Your task to perform on an android device: Search for Italian restaurants on Maps Image 0: 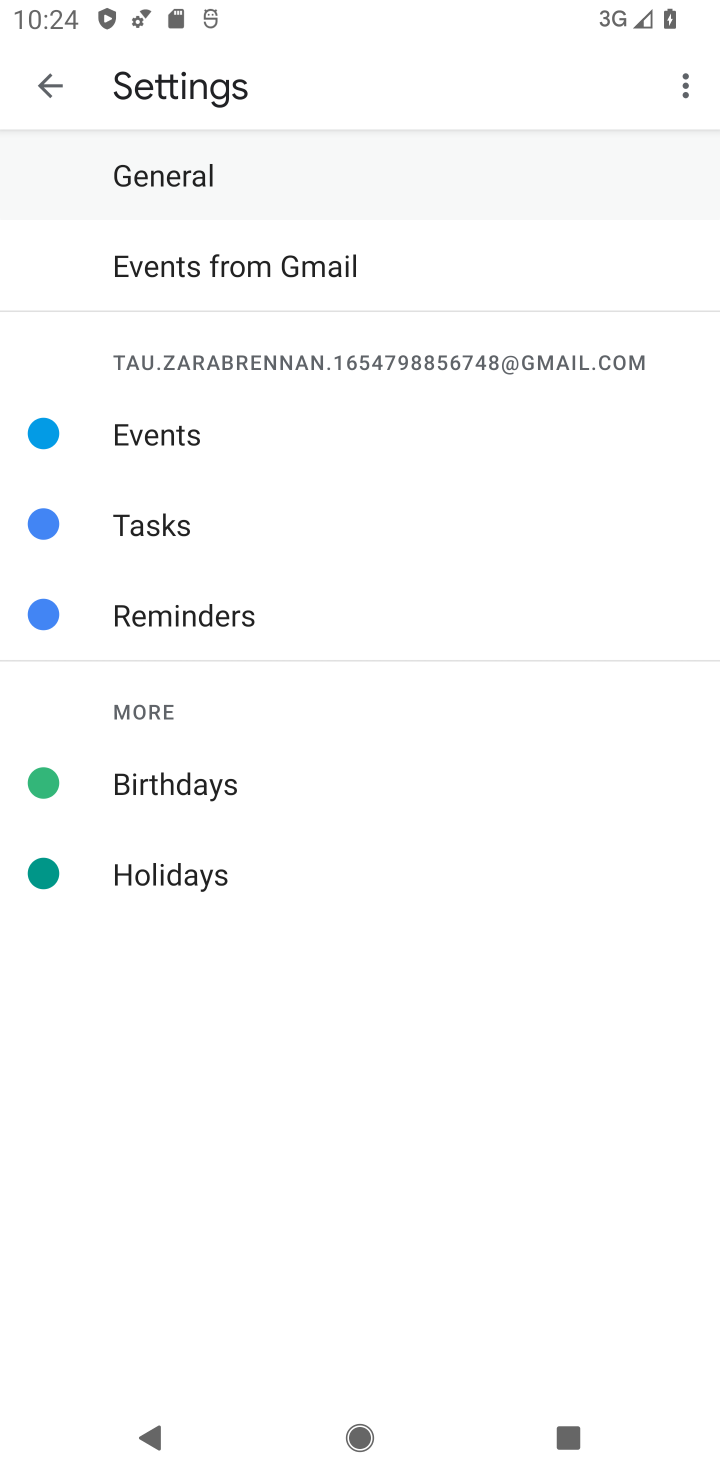
Step 0: press home button
Your task to perform on an android device: Search for Italian restaurants on Maps Image 1: 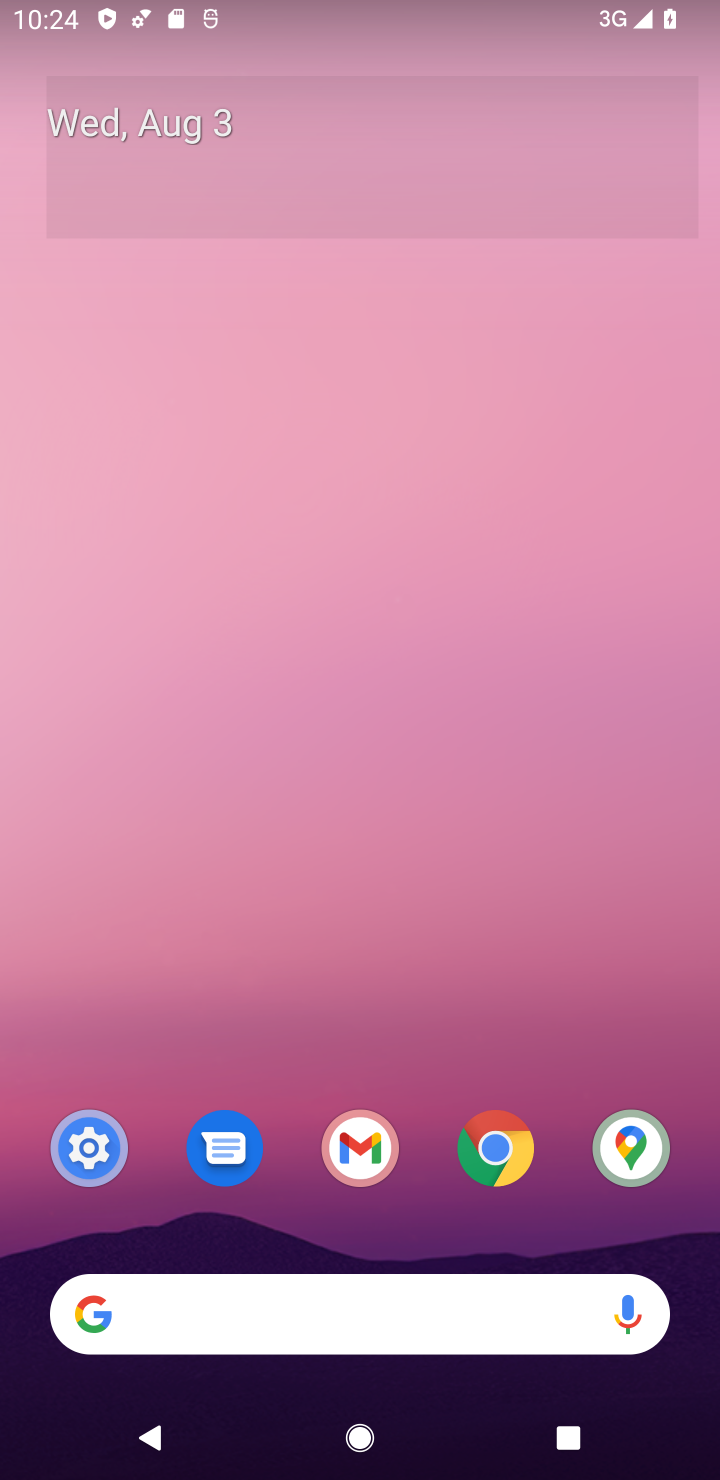
Step 1: click (455, 1302)
Your task to perform on an android device: Search for Italian restaurants on Maps Image 2: 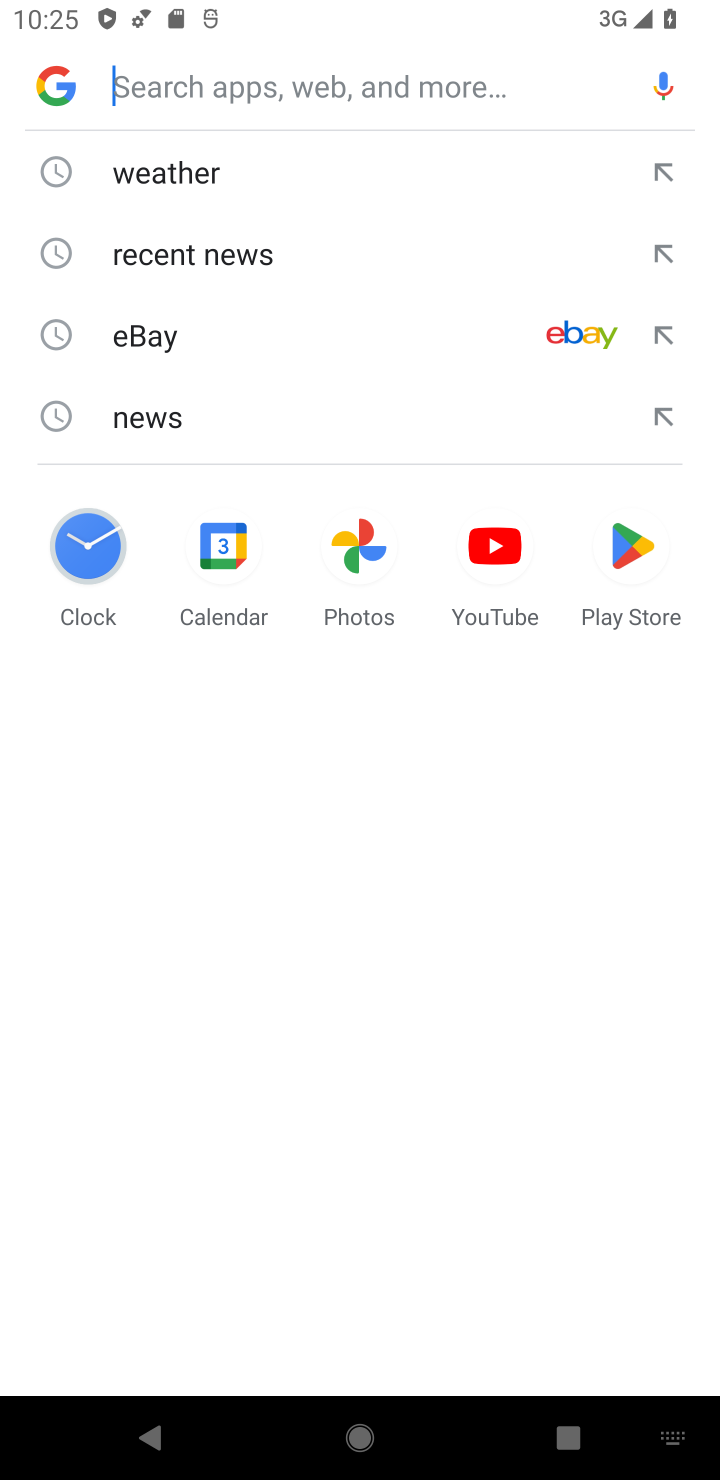
Step 2: type "Italian restaurants "
Your task to perform on an android device: Search for Italian restaurants on Maps Image 3: 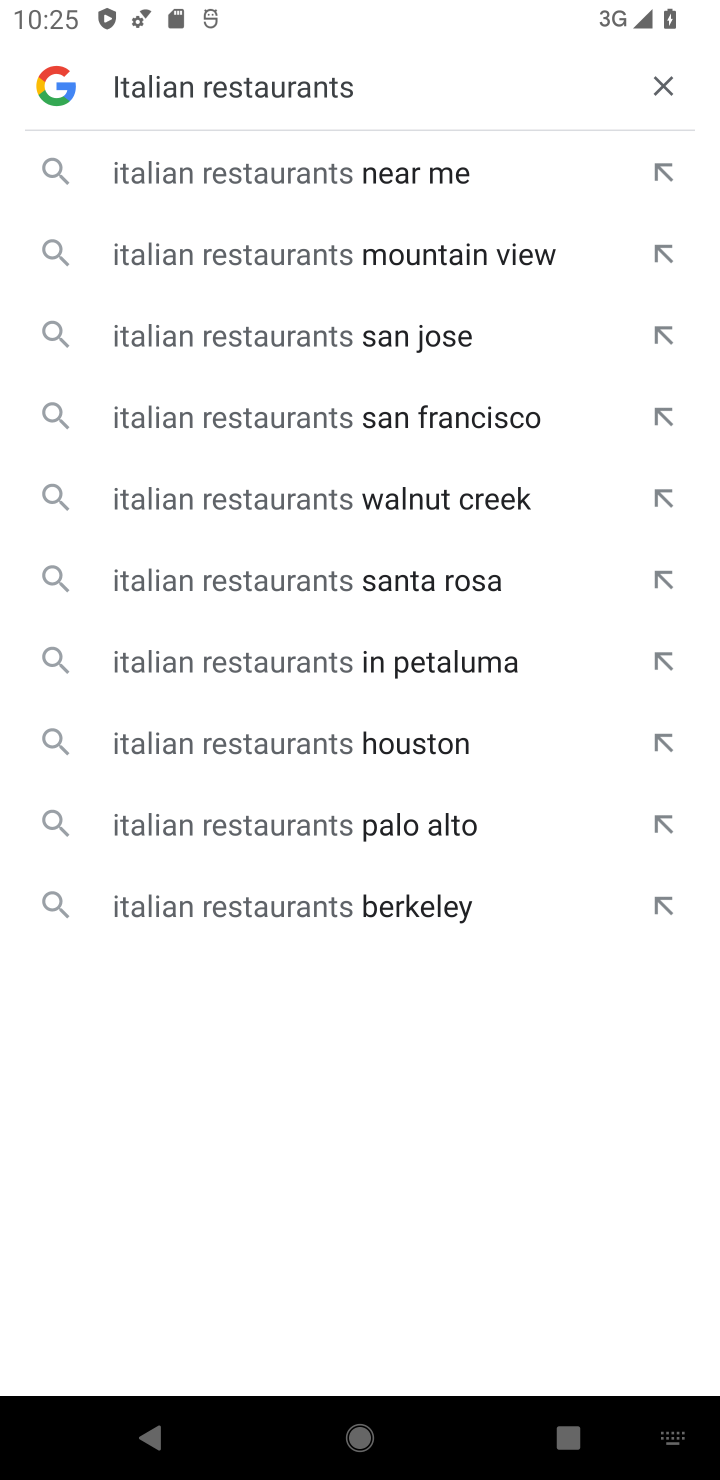
Step 3: type ""
Your task to perform on an android device: Search for Italian restaurants on Maps Image 4: 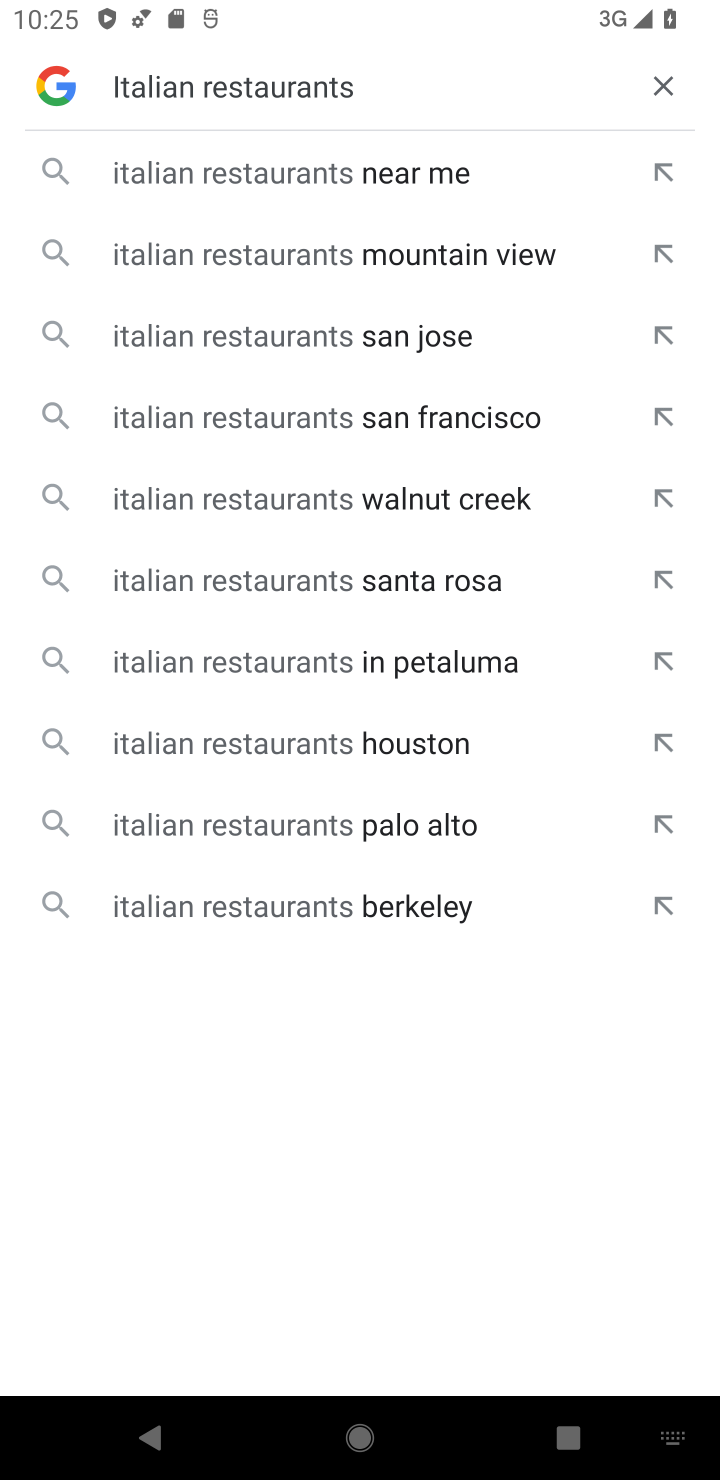
Step 4: type ""
Your task to perform on an android device: Search for Italian restaurants on Maps Image 5: 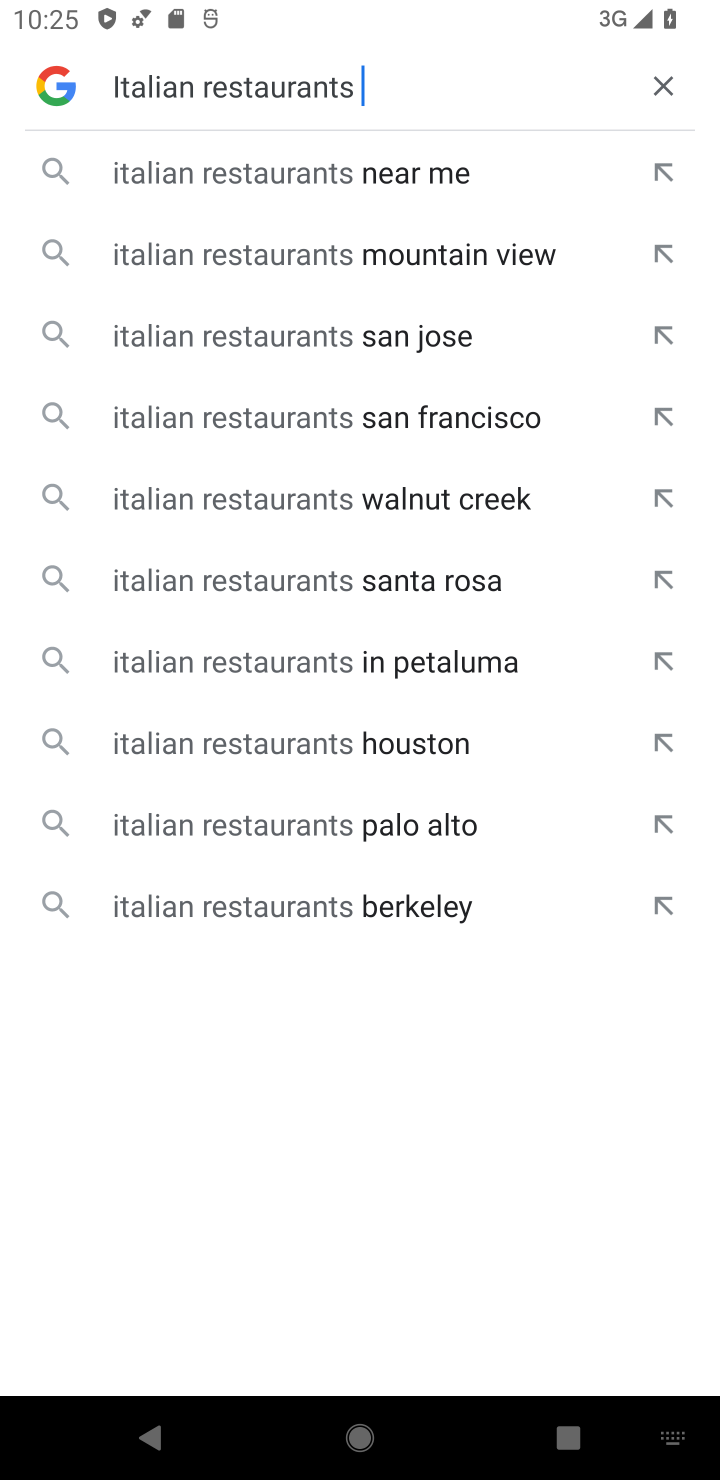
Step 5: press enter
Your task to perform on an android device: Search for Italian restaurants on Maps Image 6: 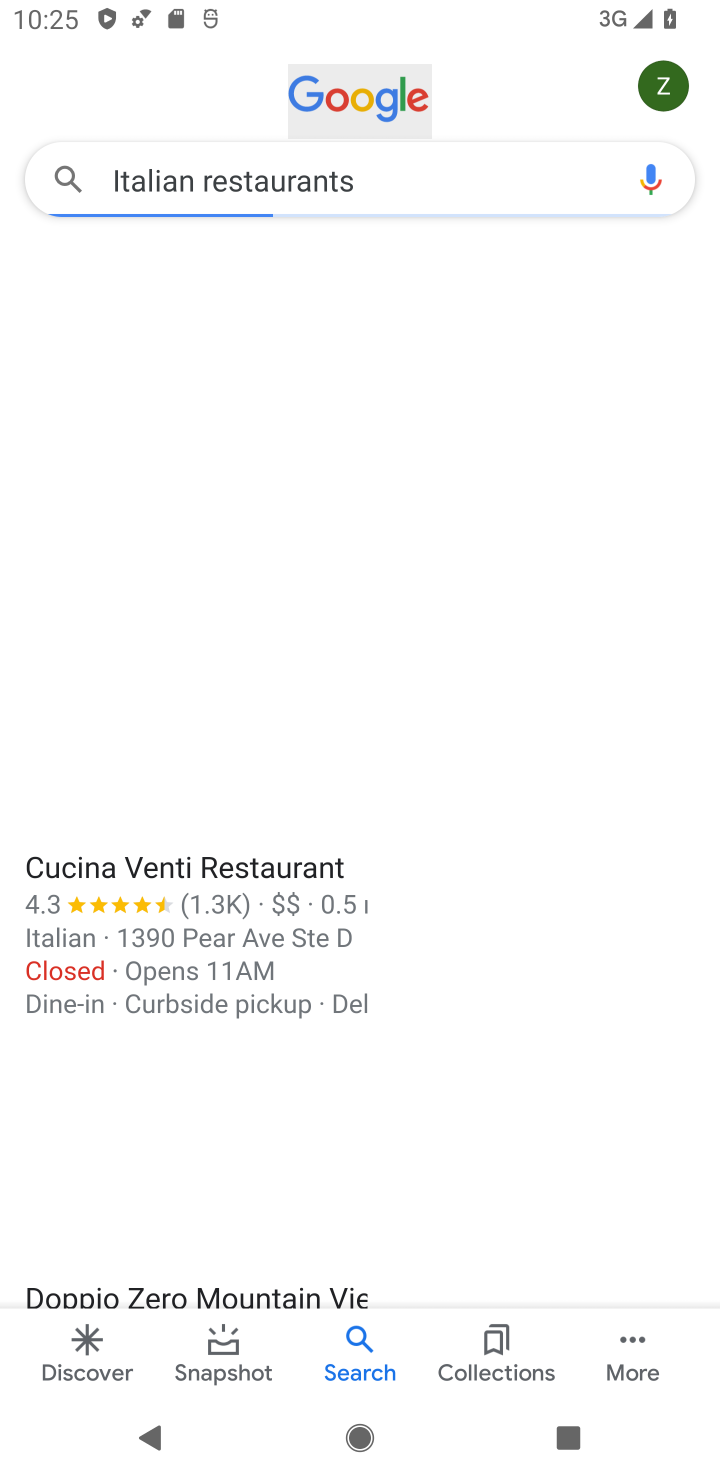
Step 6: task complete